Your task to perform on an android device: move a message to another label in the gmail app Image 0: 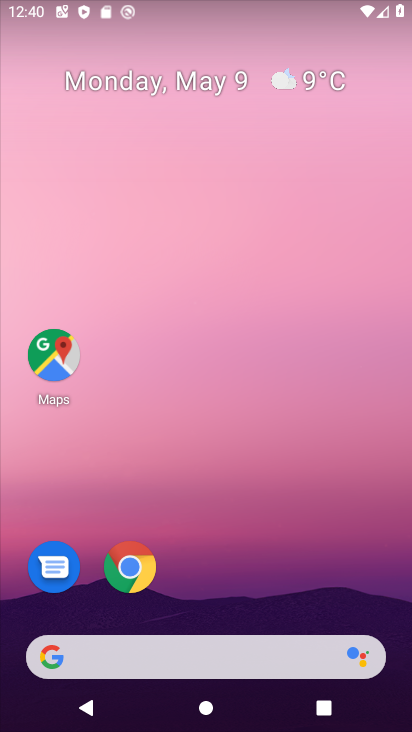
Step 0: drag from (280, 685) to (247, 315)
Your task to perform on an android device: move a message to another label in the gmail app Image 1: 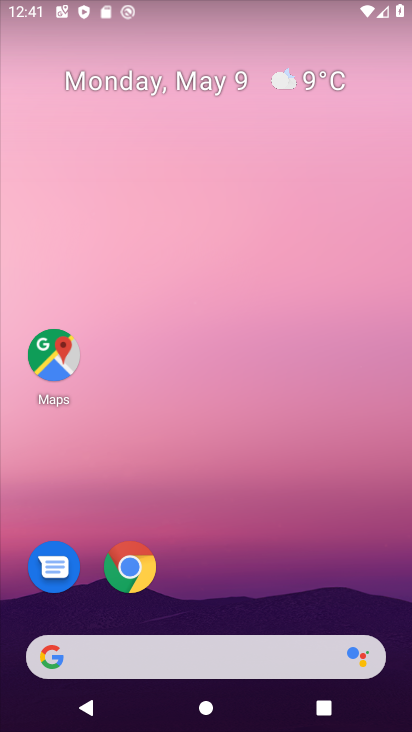
Step 1: drag from (301, 691) to (268, 185)
Your task to perform on an android device: move a message to another label in the gmail app Image 2: 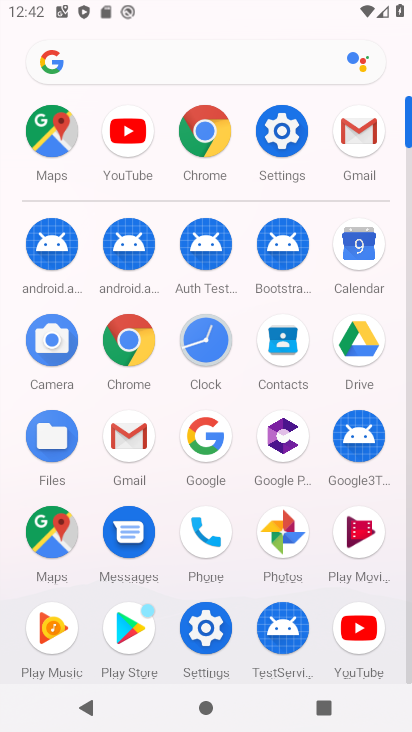
Step 2: click (363, 145)
Your task to perform on an android device: move a message to another label in the gmail app Image 3: 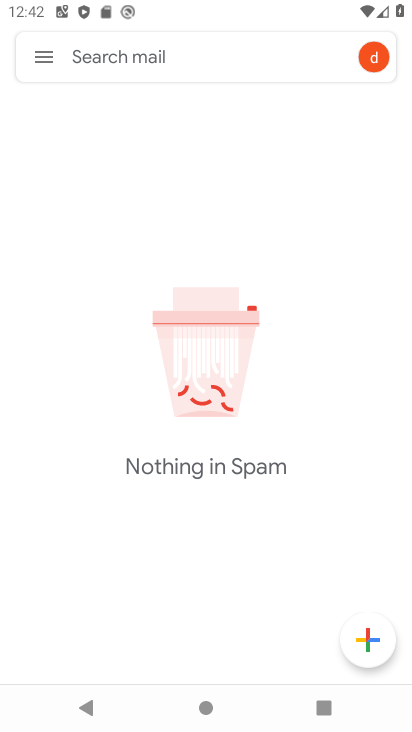
Step 3: click (45, 58)
Your task to perform on an android device: move a message to another label in the gmail app Image 4: 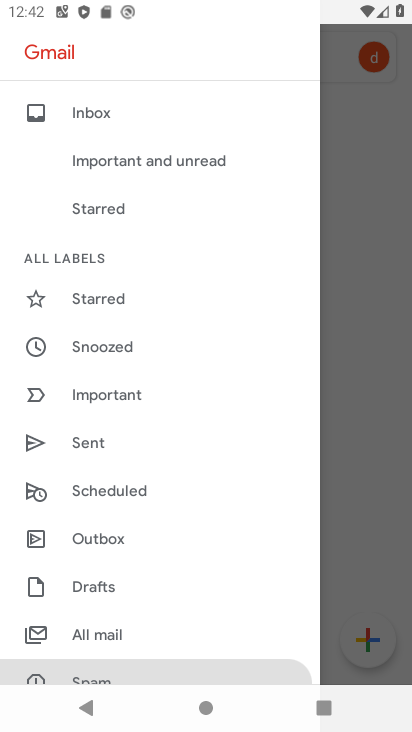
Step 4: drag from (129, 459) to (161, 322)
Your task to perform on an android device: move a message to another label in the gmail app Image 5: 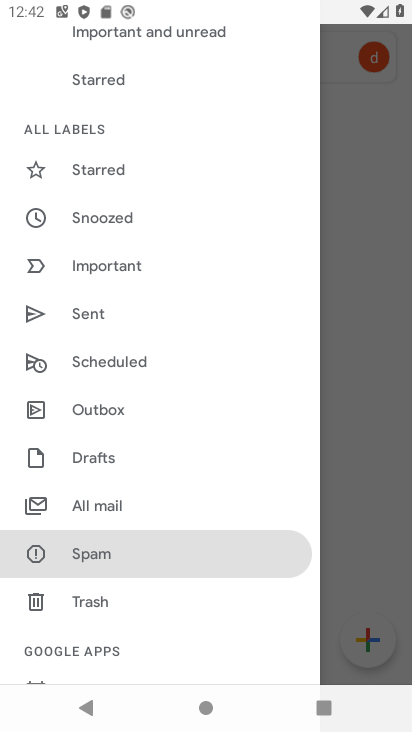
Step 5: drag from (129, 539) to (157, 181)
Your task to perform on an android device: move a message to another label in the gmail app Image 6: 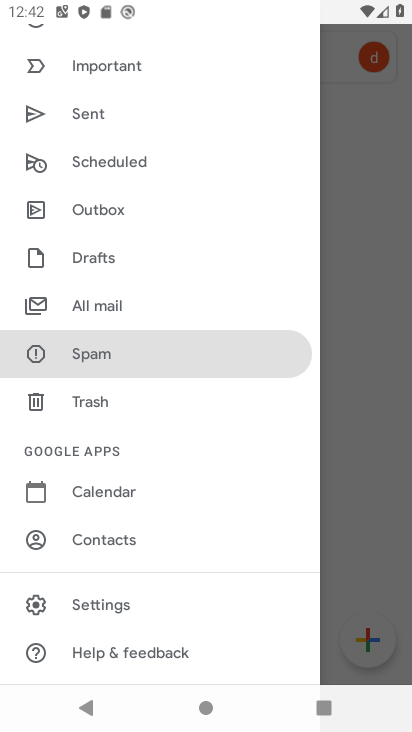
Step 6: click (103, 602)
Your task to perform on an android device: move a message to another label in the gmail app Image 7: 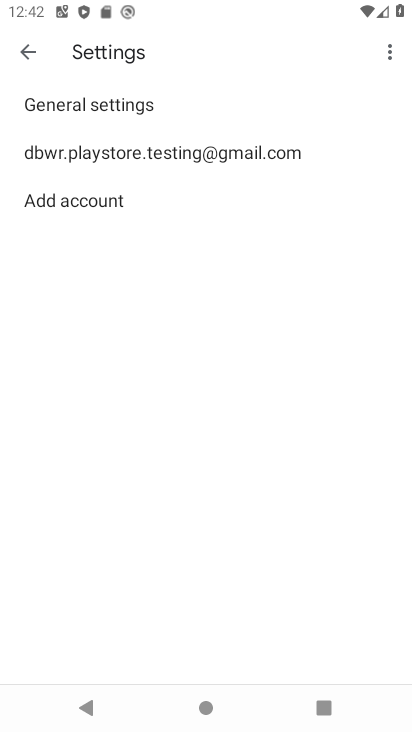
Step 7: click (187, 157)
Your task to perform on an android device: move a message to another label in the gmail app Image 8: 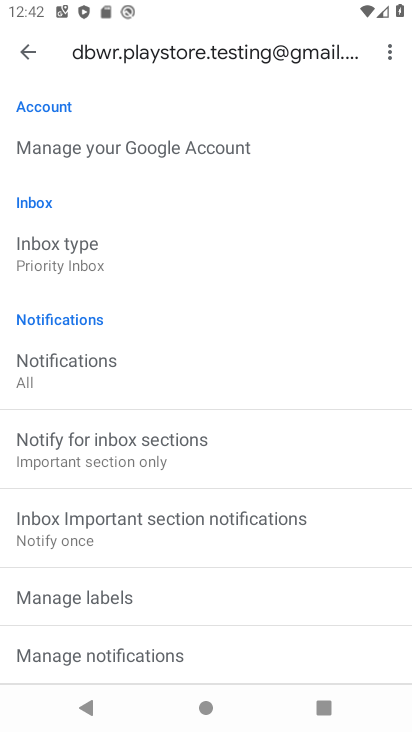
Step 8: click (65, 597)
Your task to perform on an android device: move a message to another label in the gmail app Image 9: 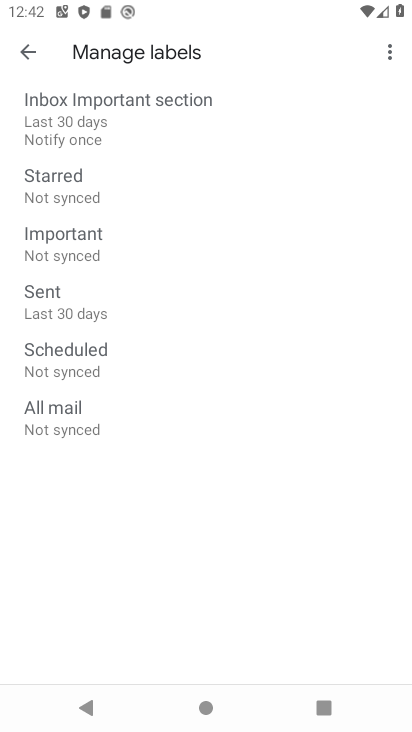
Step 9: task complete